Your task to perform on an android device: Open sound settings Image 0: 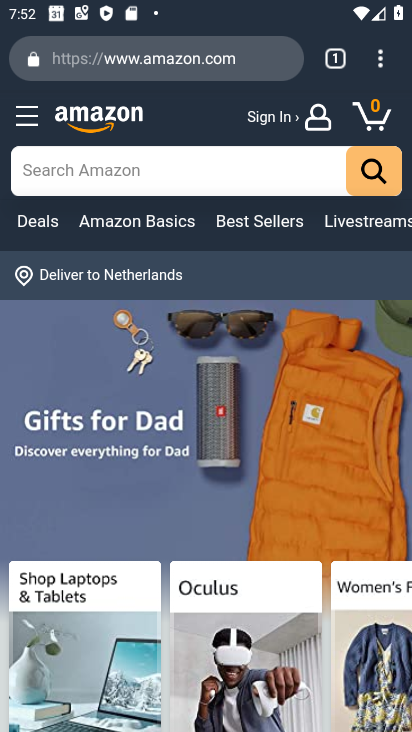
Step 0: press home button
Your task to perform on an android device: Open sound settings Image 1: 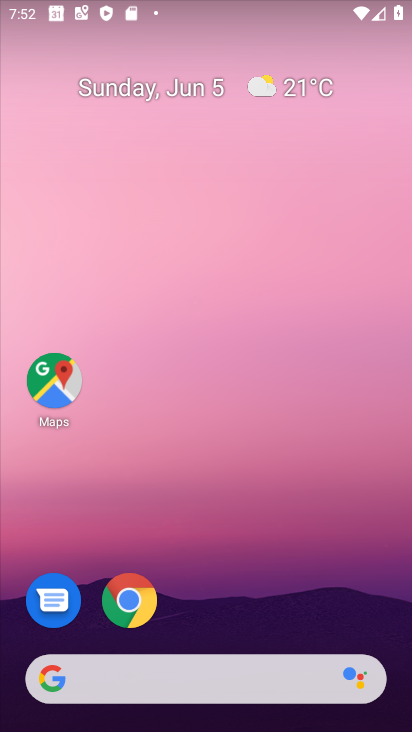
Step 1: drag from (127, 729) to (110, 59)
Your task to perform on an android device: Open sound settings Image 2: 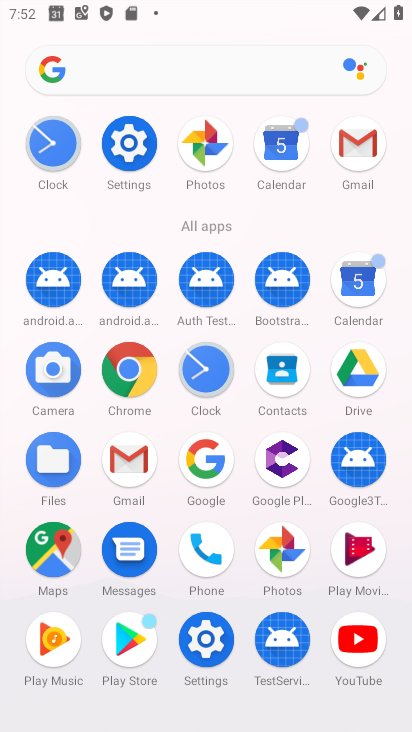
Step 2: click (120, 162)
Your task to perform on an android device: Open sound settings Image 3: 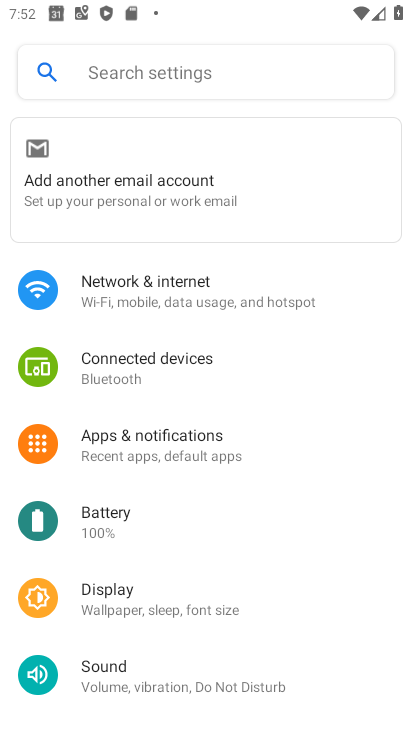
Step 3: click (122, 679)
Your task to perform on an android device: Open sound settings Image 4: 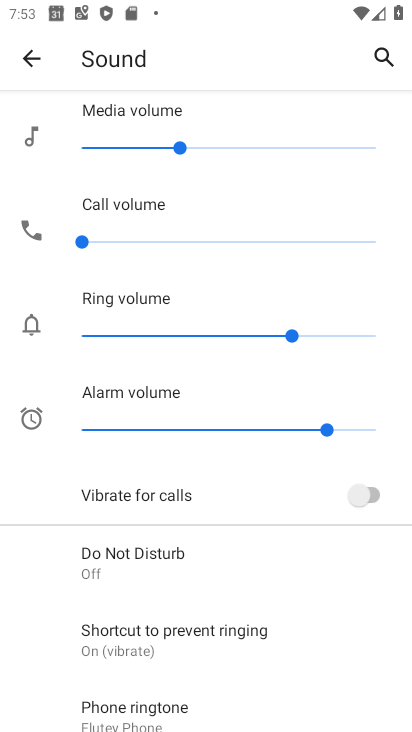
Step 4: task complete